Your task to perform on an android device: turn off notifications in google photos Image 0: 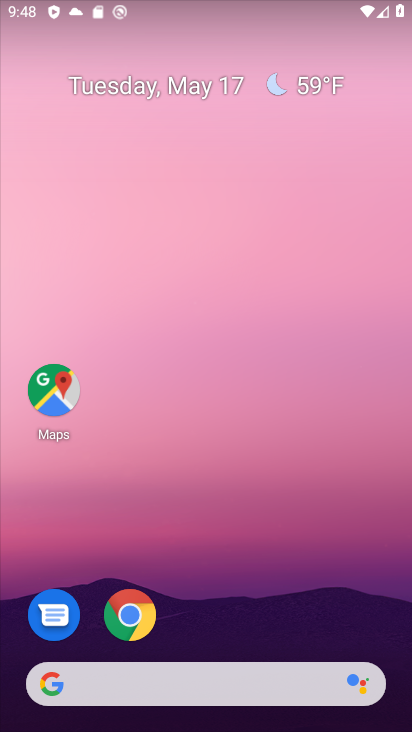
Step 0: drag from (203, 456) to (182, 254)
Your task to perform on an android device: turn off notifications in google photos Image 1: 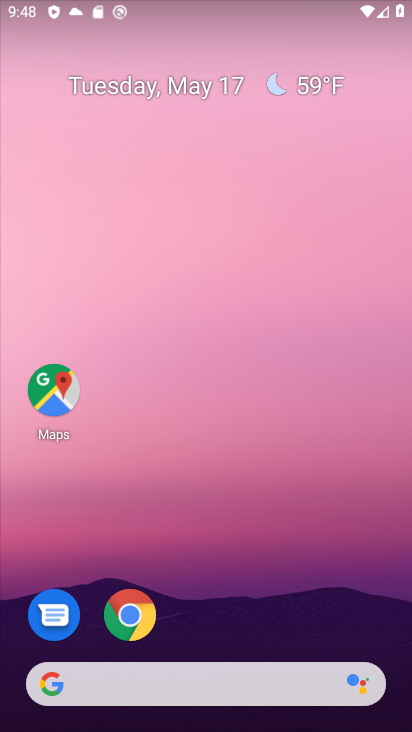
Step 1: drag from (236, 602) to (219, 81)
Your task to perform on an android device: turn off notifications in google photos Image 2: 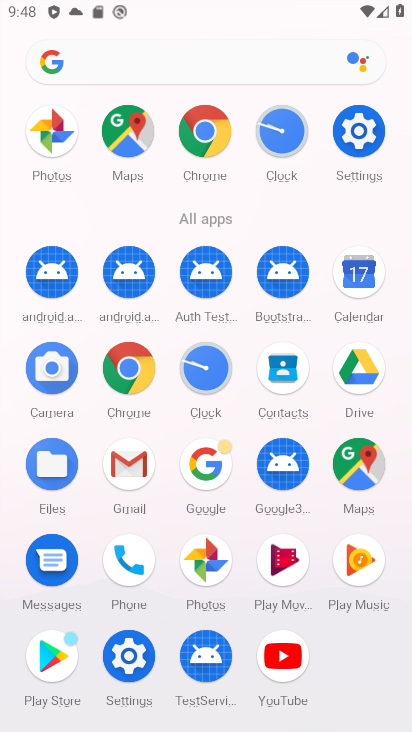
Step 2: click (350, 141)
Your task to perform on an android device: turn off notifications in google photos Image 3: 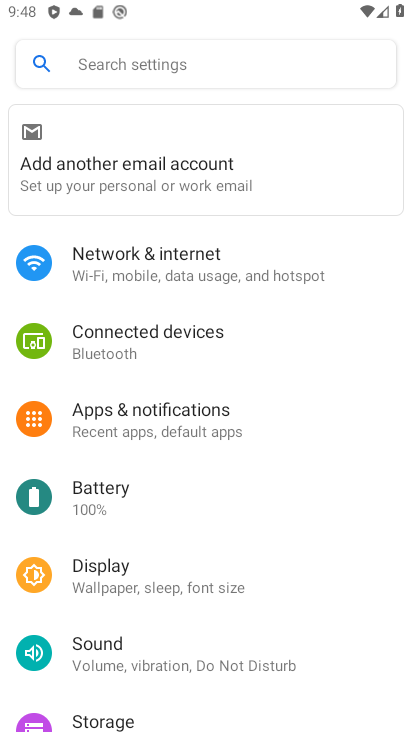
Step 3: click (124, 422)
Your task to perform on an android device: turn off notifications in google photos Image 4: 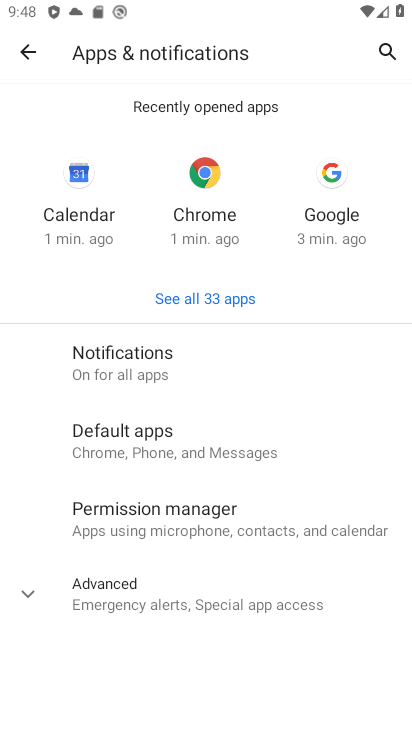
Step 4: click (136, 368)
Your task to perform on an android device: turn off notifications in google photos Image 5: 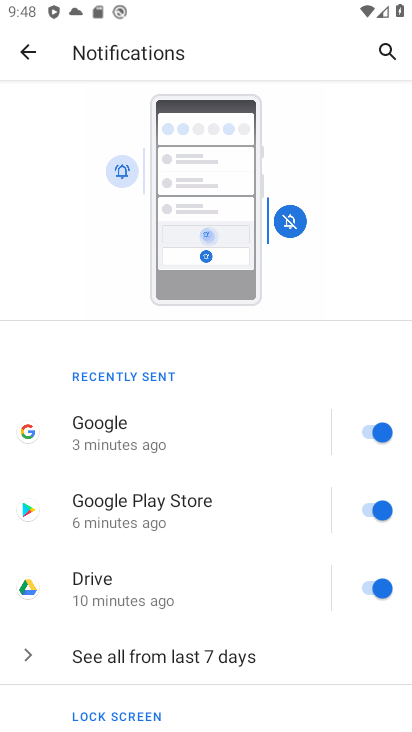
Step 5: drag from (173, 677) to (181, 303)
Your task to perform on an android device: turn off notifications in google photos Image 6: 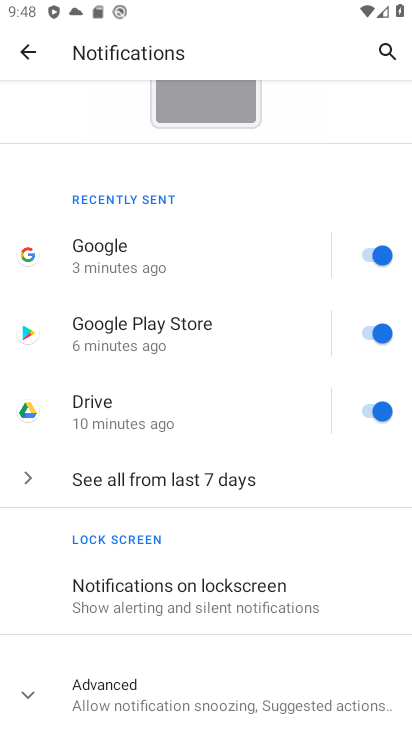
Step 6: click (128, 606)
Your task to perform on an android device: turn off notifications in google photos Image 7: 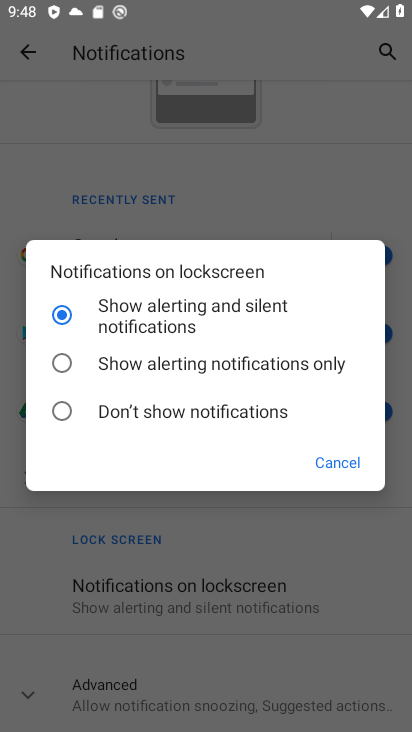
Step 7: press home button
Your task to perform on an android device: turn off notifications in google photos Image 8: 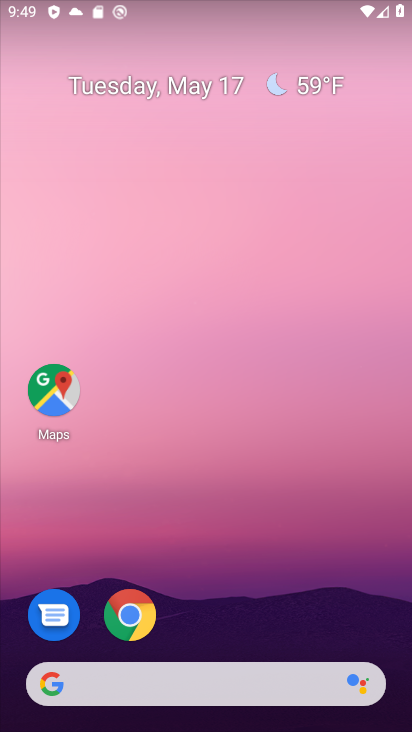
Step 8: drag from (212, 616) to (213, 191)
Your task to perform on an android device: turn off notifications in google photos Image 9: 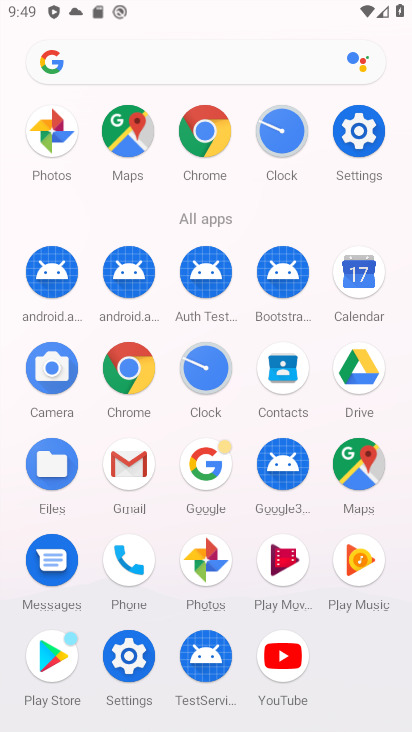
Step 9: click (215, 567)
Your task to perform on an android device: turn off notifications in google photos Image 10: 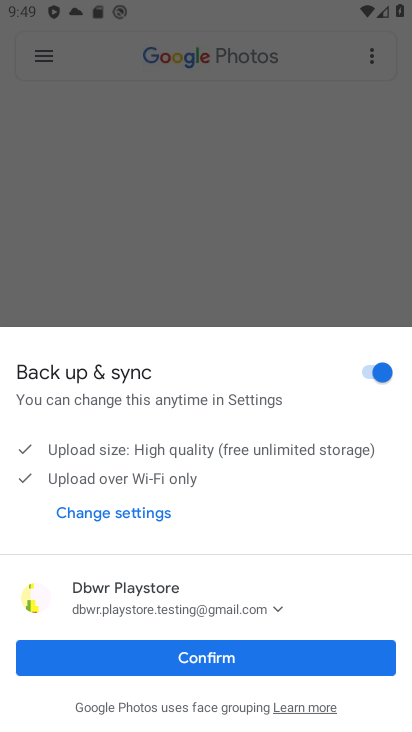
Step 10: click (208, 657)
Your task to perform on an android device: turn off notifications in google photos Image 11: 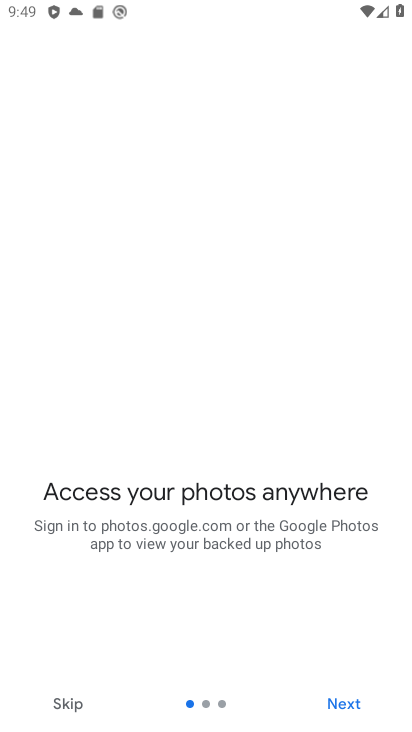
Step 11: click (351, 697)
Your task to perform on an android device: turn off notifications in google photos Image 12: 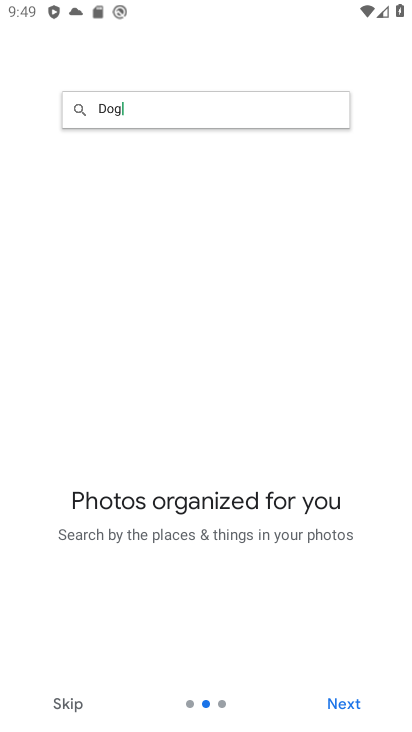
Step 12: click (339, 701)
Your task to perform on an android device: turn off notifications in google photos Image 13: 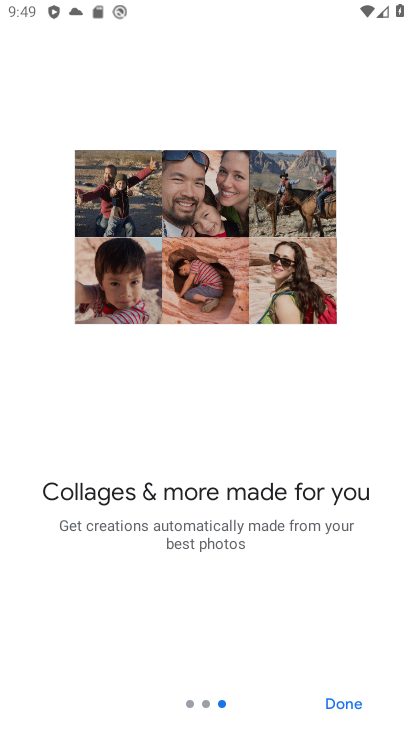
Step 13: click (339, 701)
Your task to perform on an android device: turn off notifications in google photos Image 14: 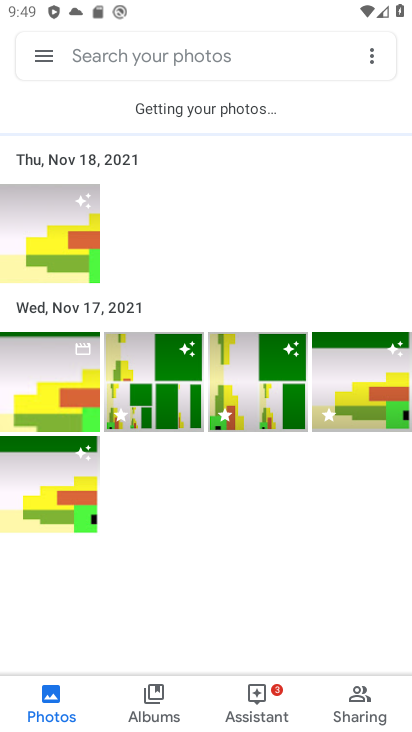
Step 14: click (46, 57)
Your task to perform on an android device: turn off notifications in google photos Image 15: 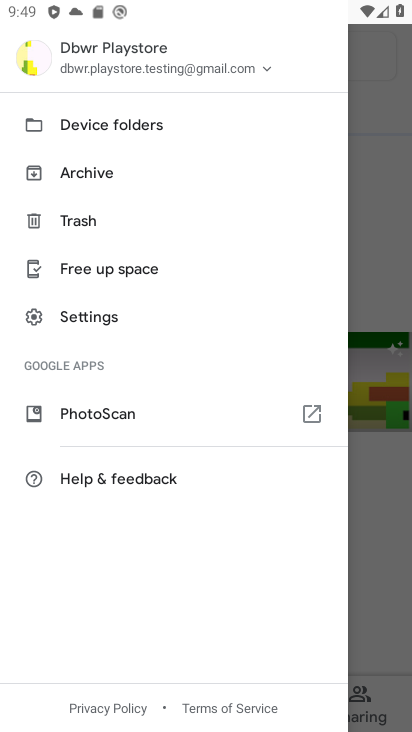
Step 15: click (104, 319)
Your task to perform on an android device: turn off notifications in google photos Image 16: 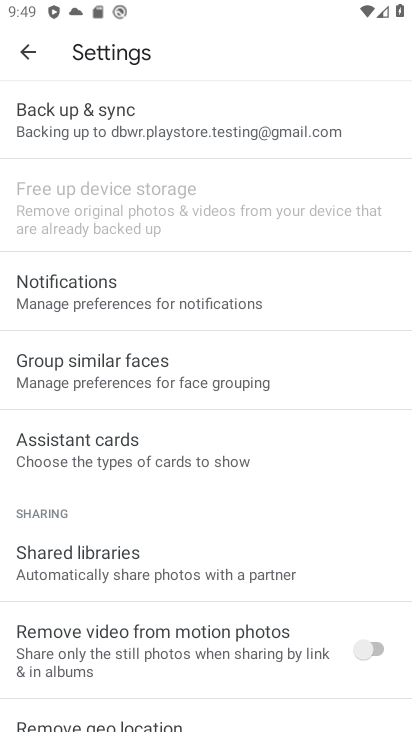
Step 16: click (86, 297)
Your task to perform on an android device: turn off notifications in google photos Image 17: 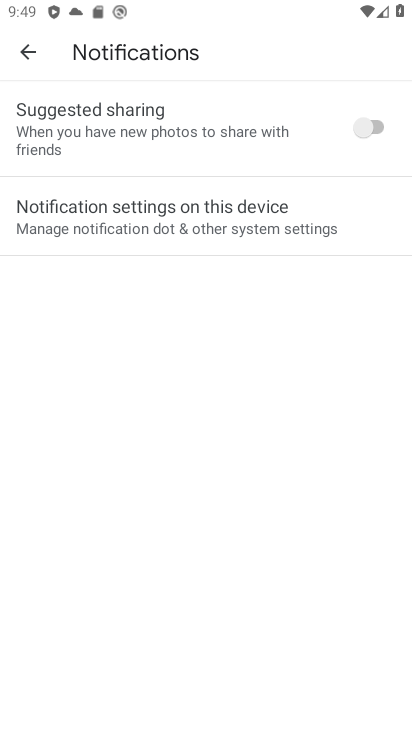
Step 17: click (236, 221)
Your task to perform on an android device: turn off notifications in google photos Image 18: 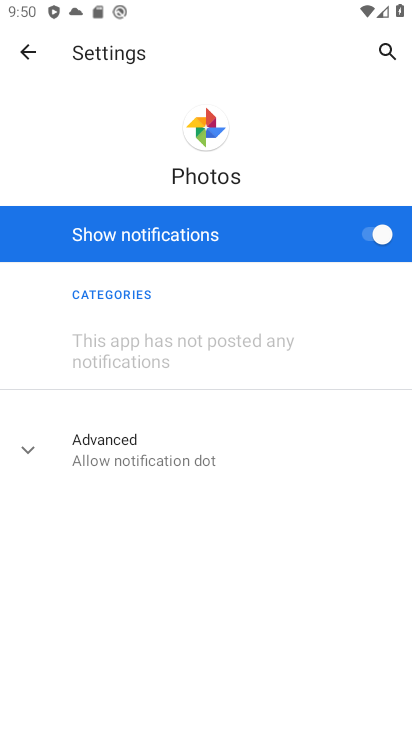
Step 18: click (364, 228)
Your task to perform on an android device: turn off notifications in google photos Image 19: 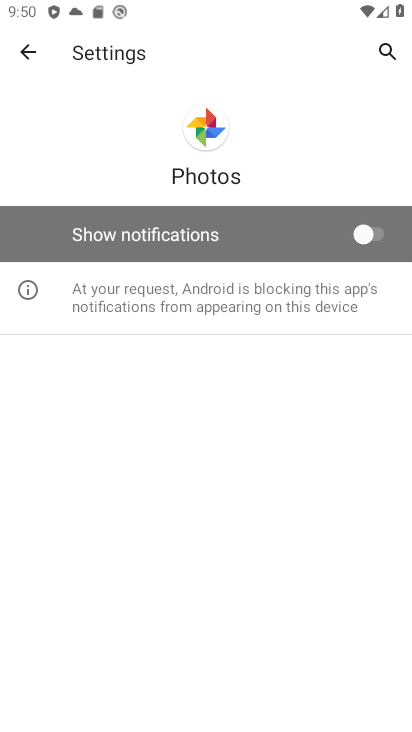
Step 19: task complete